Your task to perform on an android device: How much does a 2 bedroom apartment rent for in Philadelphia? Image 0: 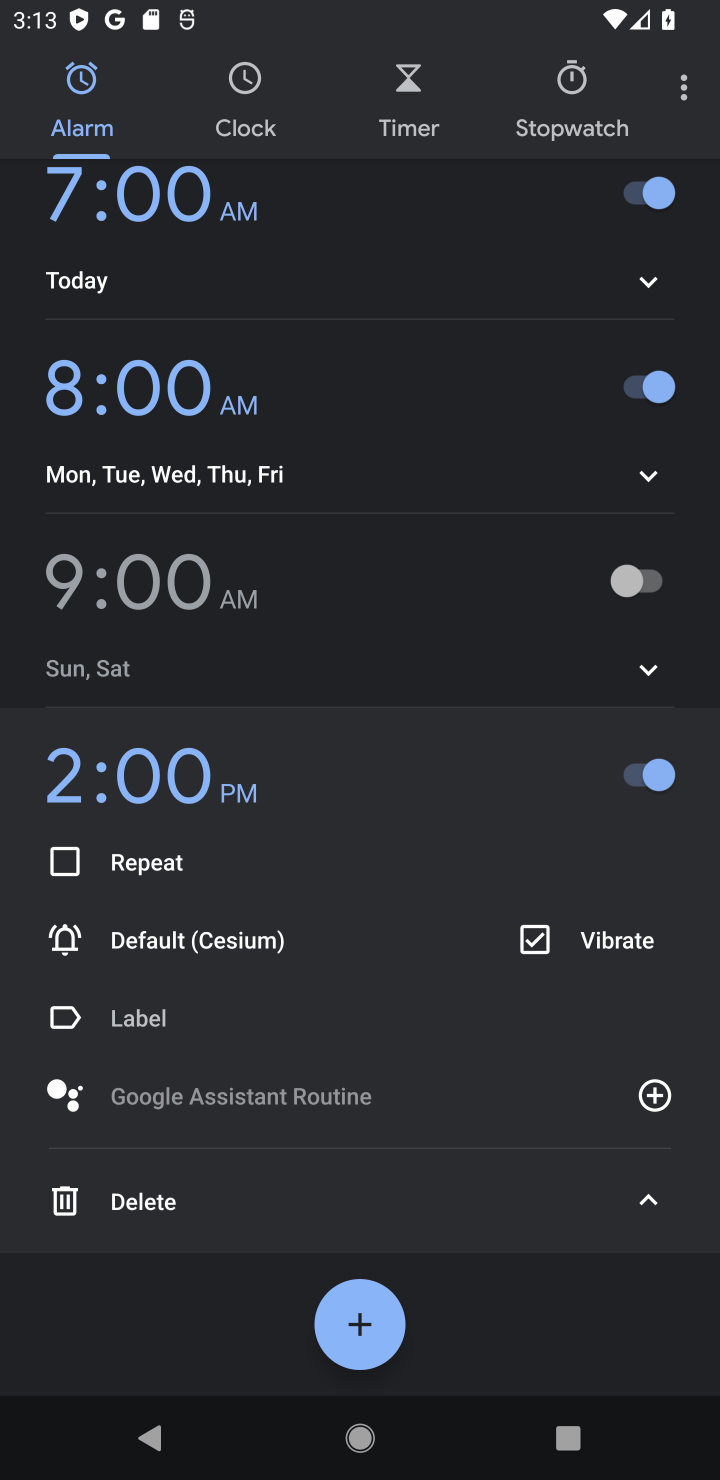
Step 0: press home button
Your task to perform on an android device: How much does a 2 bedroom apartment rent for in Philadelphia? Image 1: 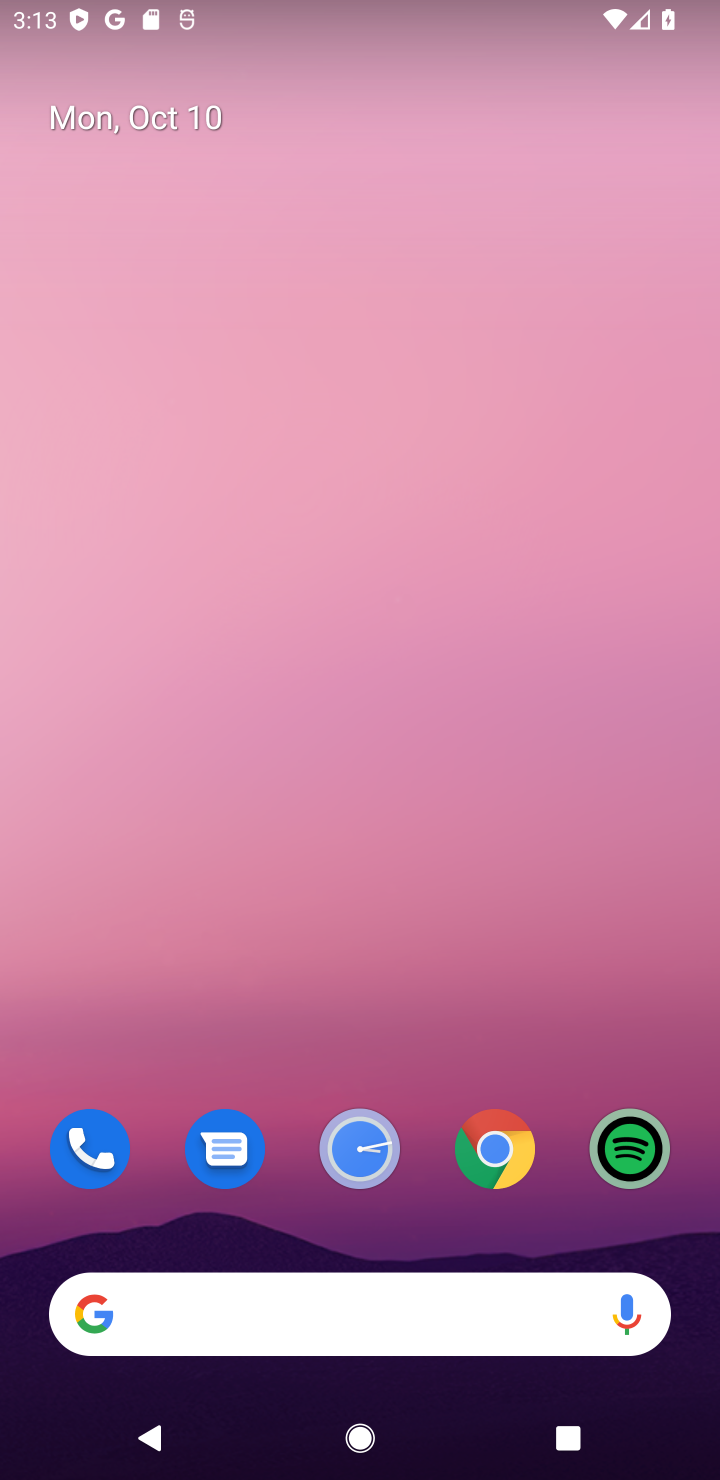
Step 1: click (265, 1284)
Your task to perform on an android device: How much does a 2 bedroom apartment rent for in Philadelphia? Image 2: 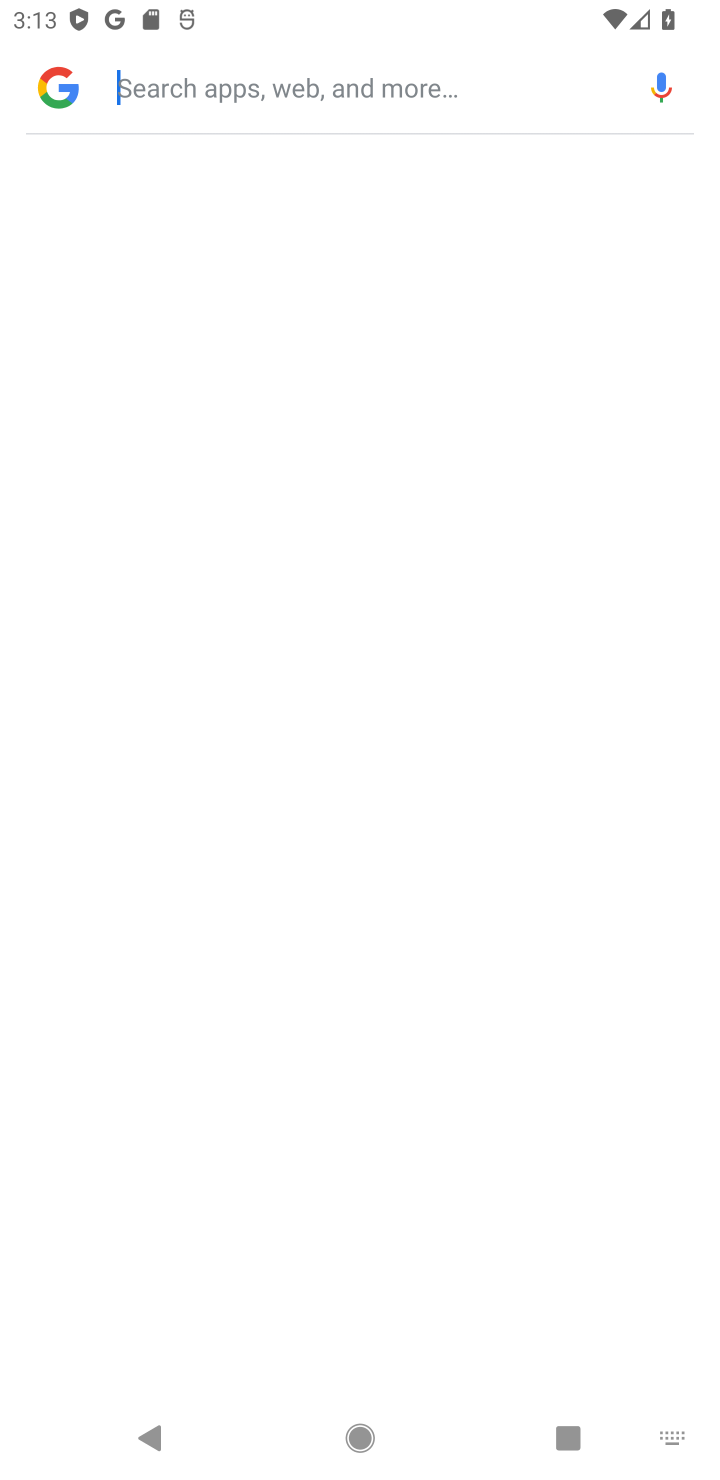
Step 2: type " 2 bedroom apartment rent for in Philadelphia"
Your task to perform on an android device: How much does a 2 bedroom apartment rent for in Philadelphia? Image 3: 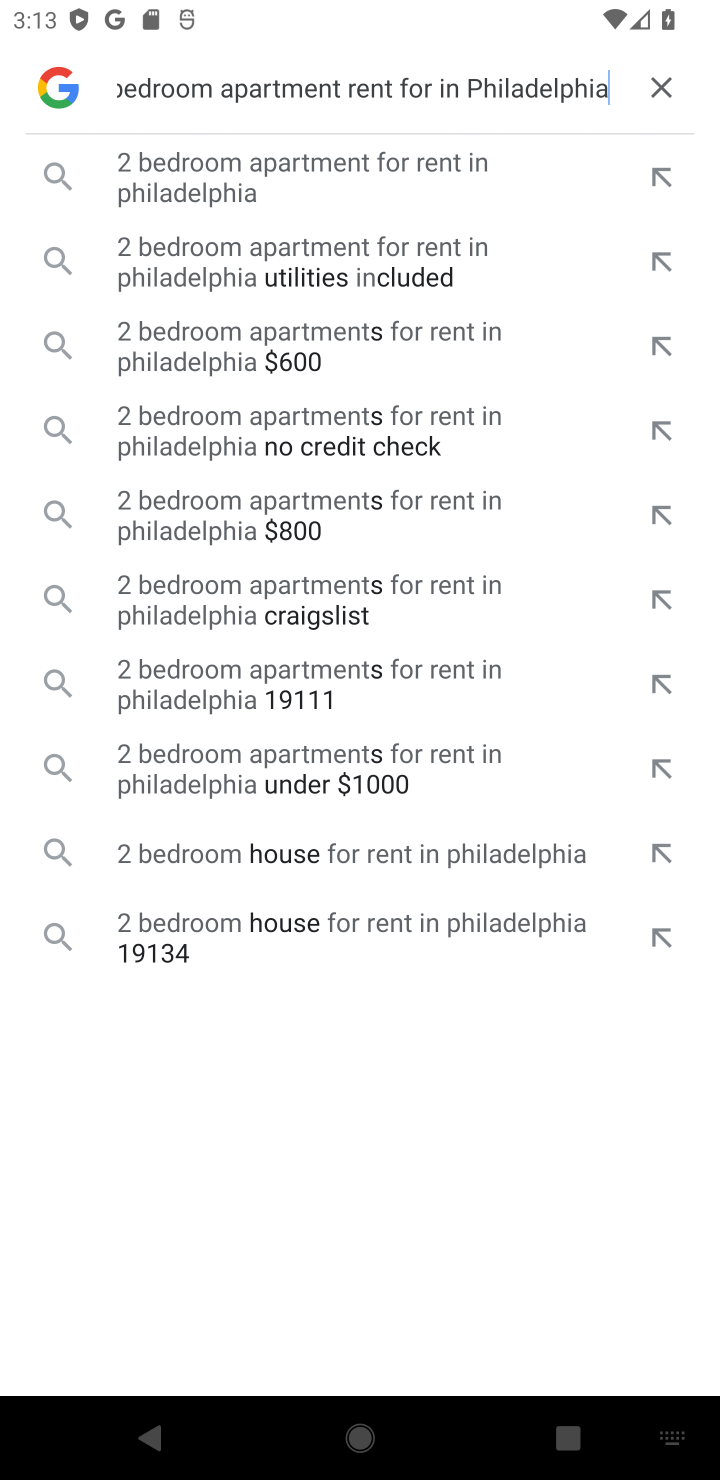
Step 3: click (145, 188)
Your task to perform on an android device: How much does a 2 bedroom apartment rent for in Philadelphia? Image 4: 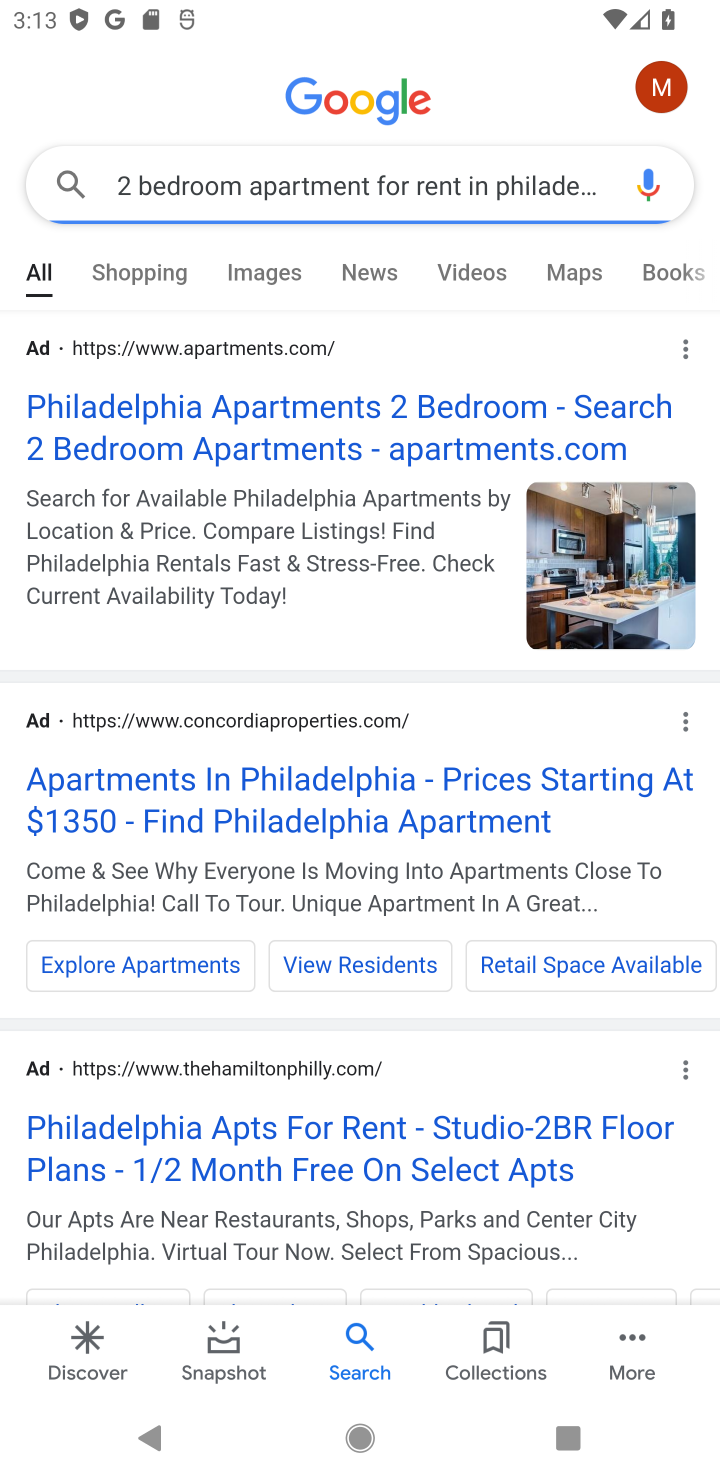
Step 4: task complete